Your task to perform on an android device: Open Yahoo.com Image 0: 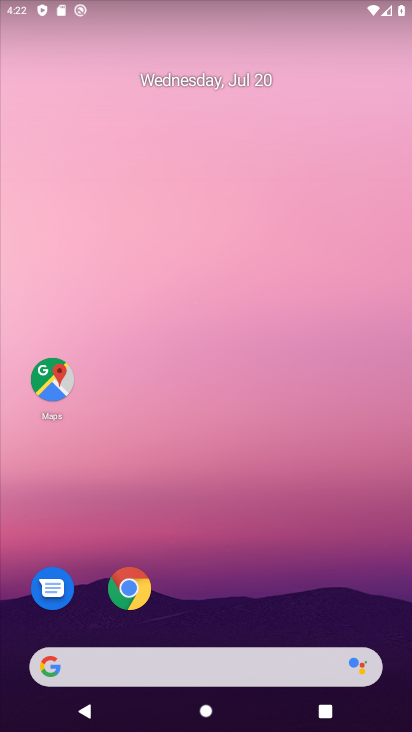
Step 0: press home button
Your task to perform on an android device: Open Yahoo.com Image 1: 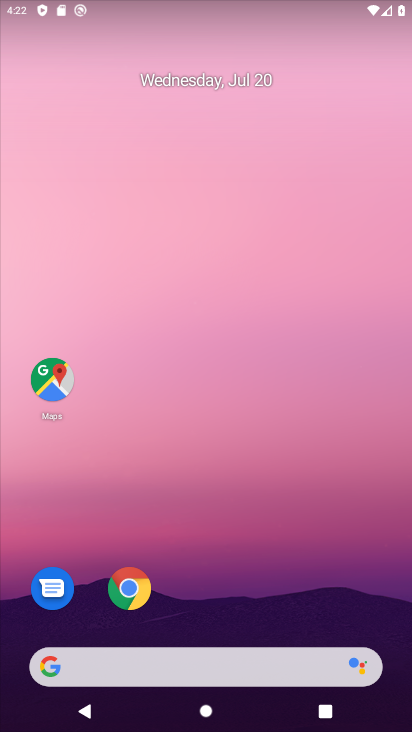
Step 1: click (126, 590)
Your task to perform on an android device: Open Yahoo.com Image 2: 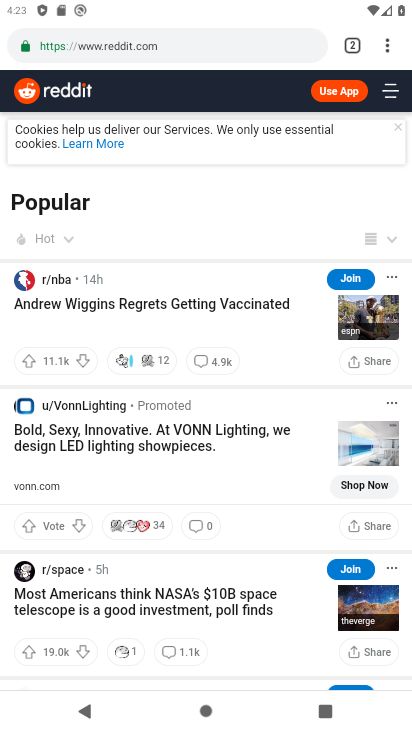
Step 2: click (347, 38)
Your task to perform on an android device: Open Yahoo.com Image 3: 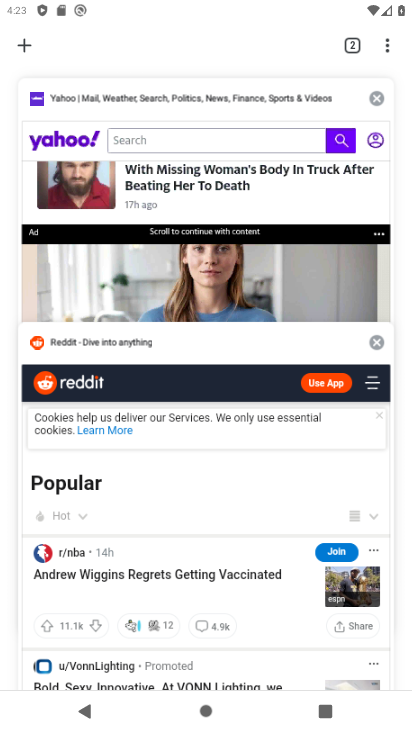
Step 3: click (181, 136)
Your task to perform on an android device: Open Yahoo.com Image 4: 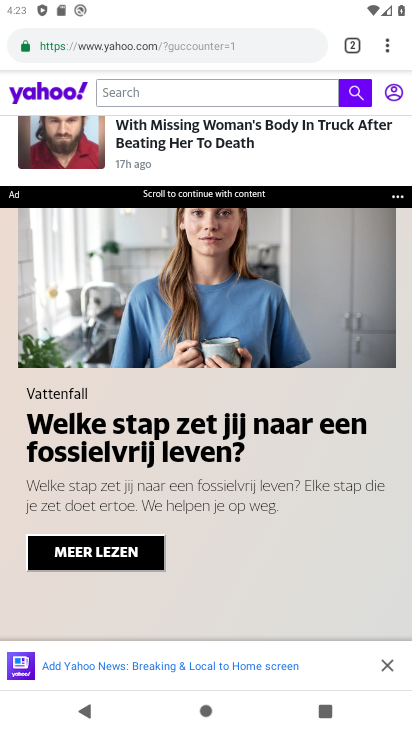
Step 4: task complete